Your task to perform on an android device: snooze an email in the gmail app Image 0: 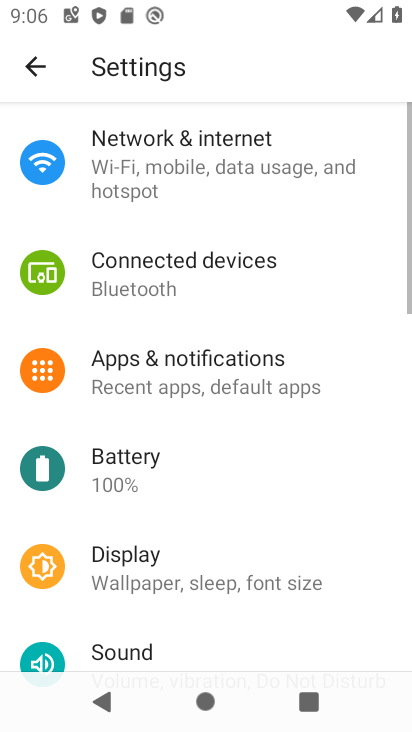
Step 0: press home button
Your task to perform on an android device: snooze an email in the gmail app Image 1: 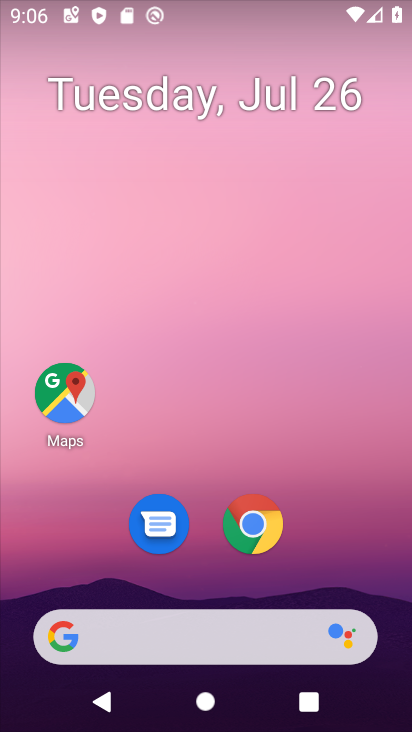
Step 1: drag from (185, 637) to (334, 119)
Your task to perform on an android device: snooze an email in the gmail app Image 2: 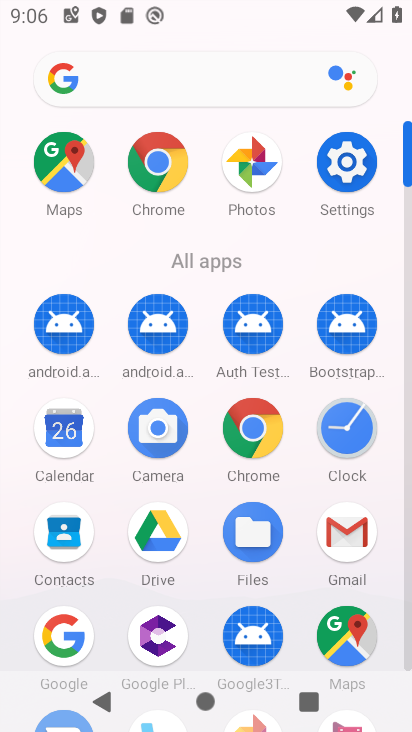
Step 2: click (348, 537)
Your task to perform on an android device: snooze an email in the gmail app Image 3: 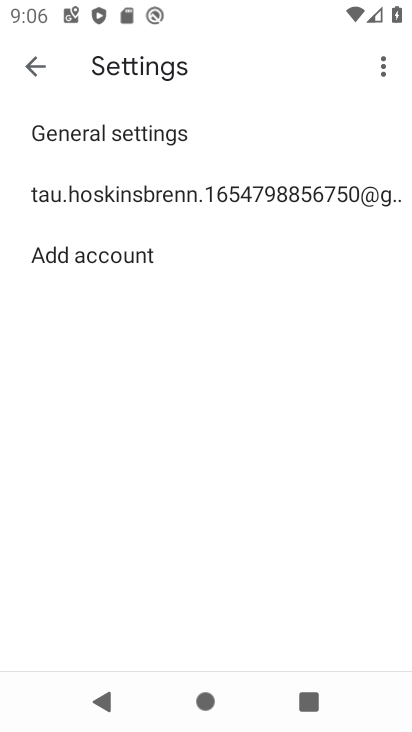
Step 3: click (34, 58)
Your task to perform on an android device: snooze an email in the gmail app Image 4: 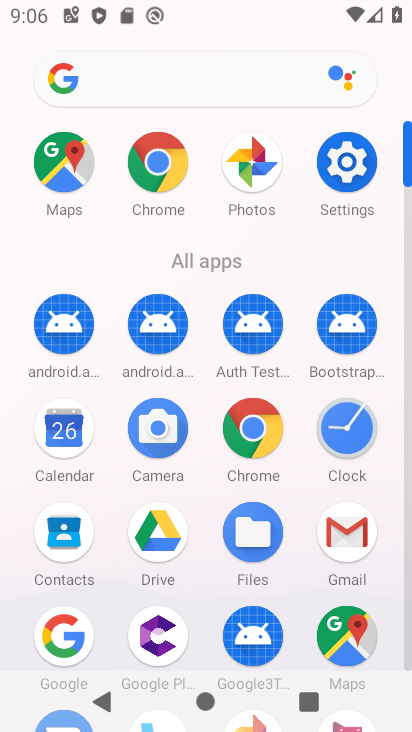
Step 4: click (337, 534)
Your task to perform on an android device: snooze an email in the gmail app Image 5: 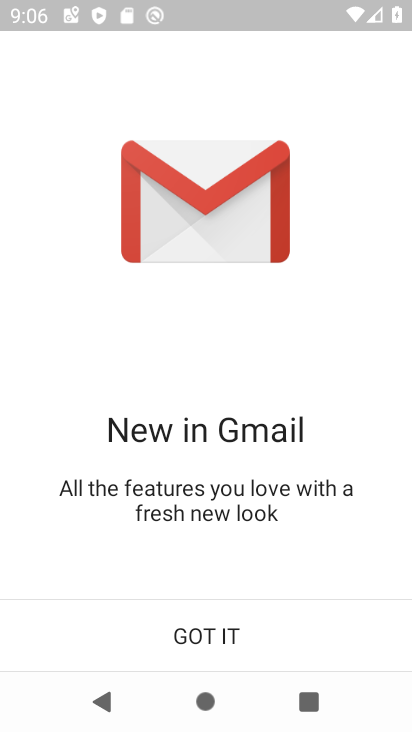
Step 5: click (218, 645)
Your task to perform on an android device: snooze an email in the gmail app Image 6: 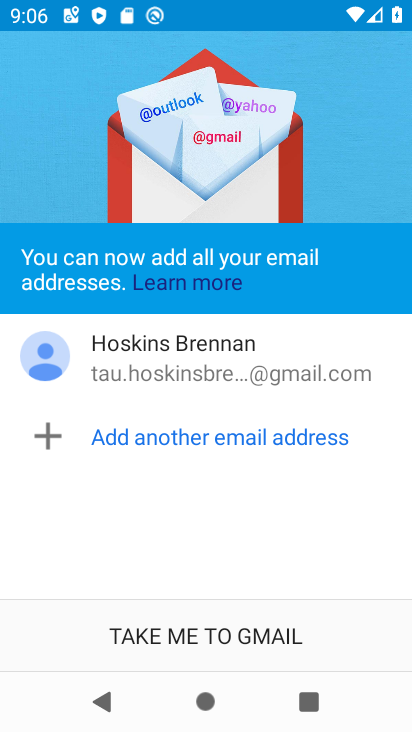
Step 6: click (218, 645)
Your task to perform on an android device: snooze an email in the gmail app Image 7: 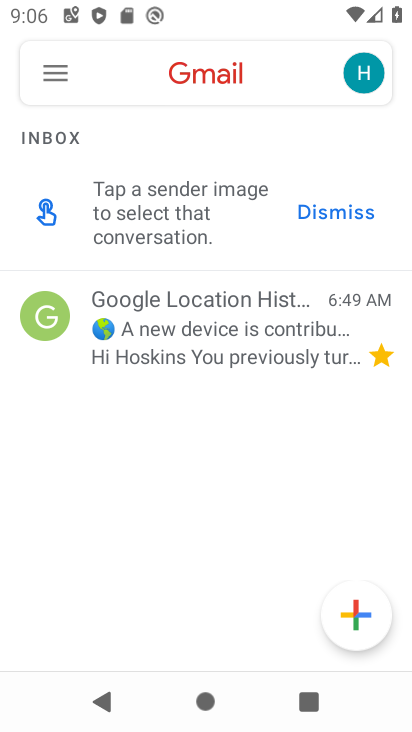
Step 7: click (50, 69)
Your task to perform on an android device: snooze an email in the gmail app Image 8: 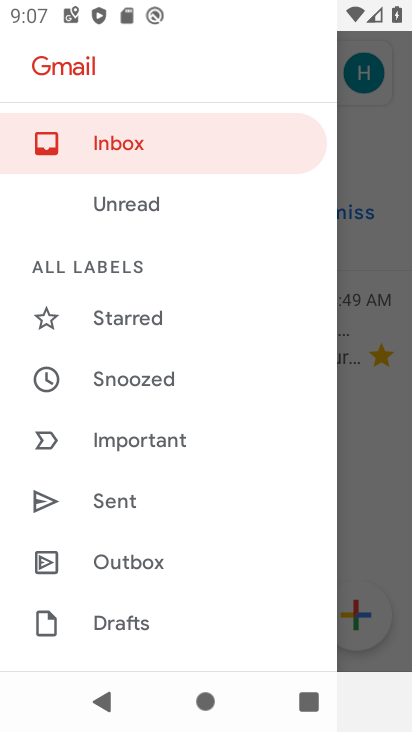
Step 8: click (380, 460)
Your task to perform on an android device: snooze an email in the gmail app Image 9: 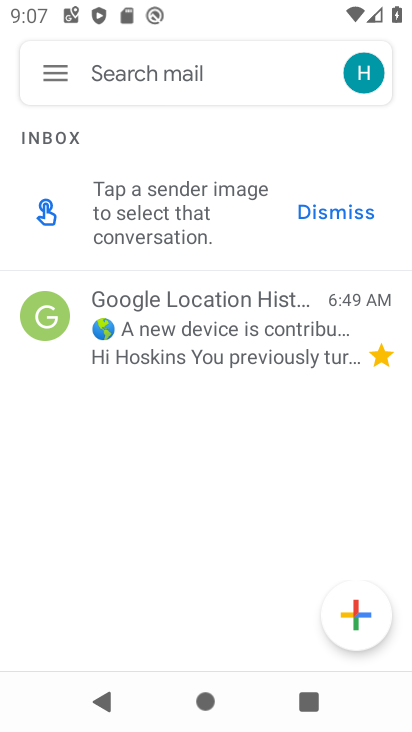
Step 9: click (48, 313)
Your task to perform on an android device: snooze an email in the gmail app Image 10: 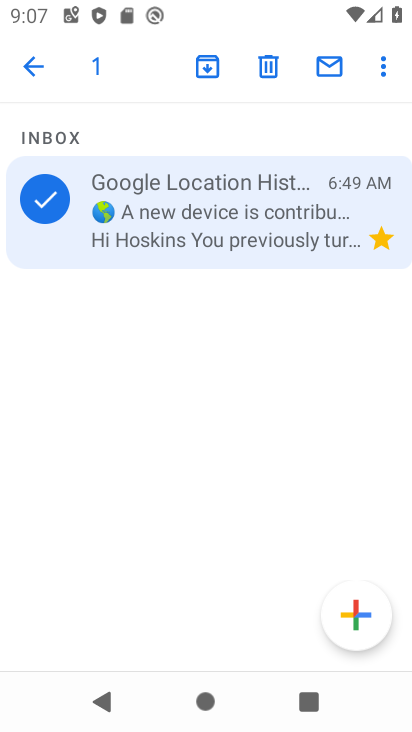
Step 10: click (383, 67)
Your task to perform on an android device: snooze an email in the gmail app Image 11: 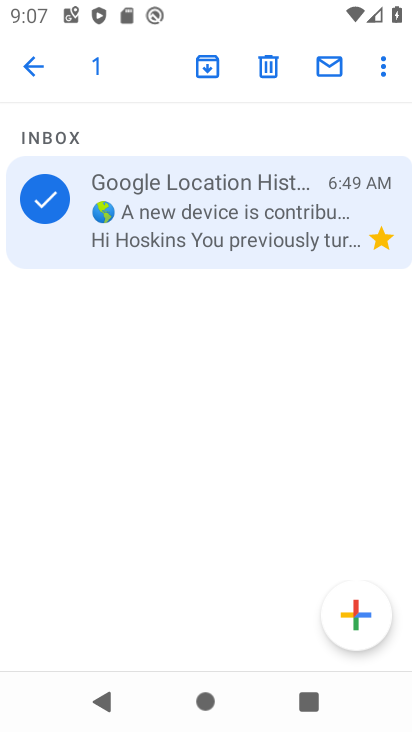
Step 11: click (386, 63)
Your task to perform on an android device: snooze an email in the gmail app Image 12: 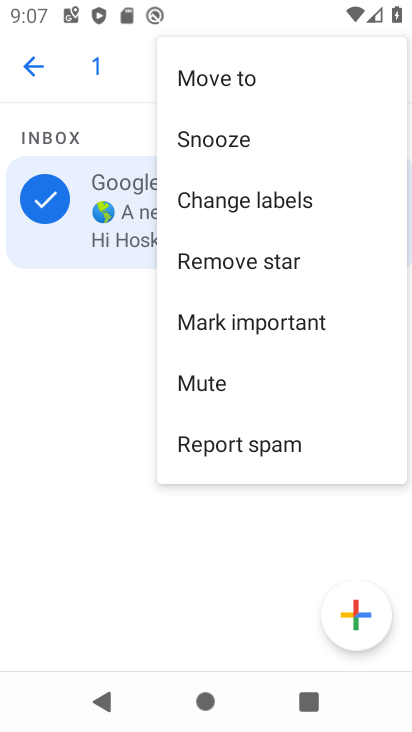
Step 12: click (235, 139)
Your task to perform on an android device: snooze an email in the gmail app Image 13: 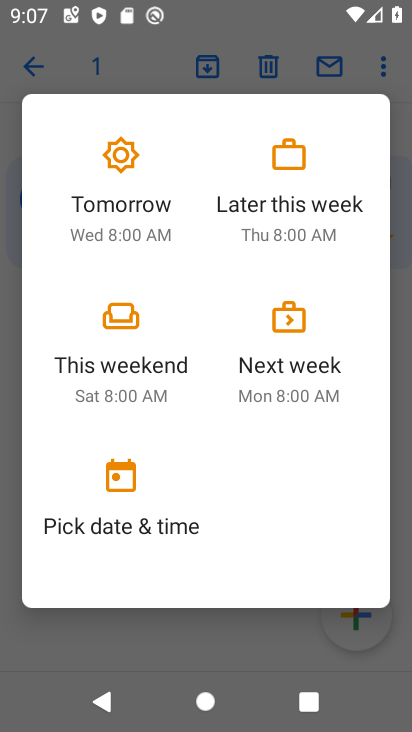
Step 13: click (115, 362)
Your task to perform on an android device: snooze an email in the gmail app Image 14: 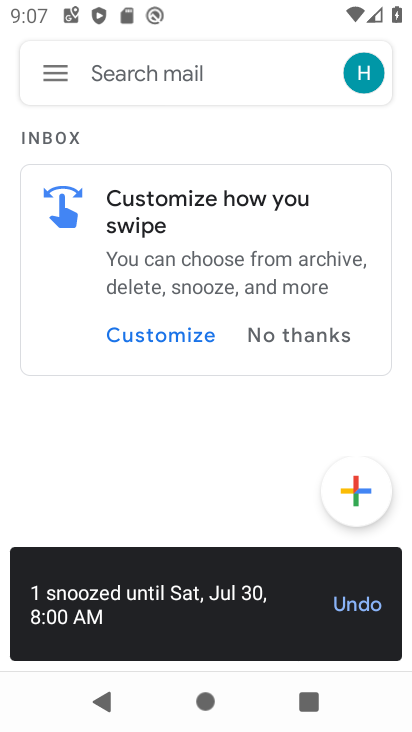
Step 14: task complete